Your task to perform on an android device: Show me productivity apps on the Play Store Image 0: 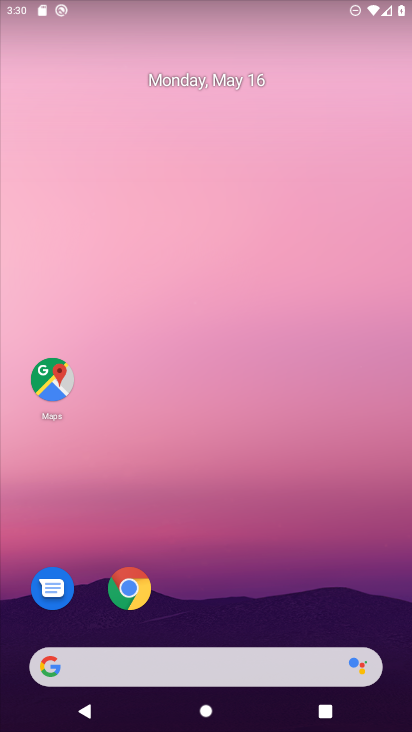
Step 0: drag from (356, 617) to (330, 1)
Your task to perform on an android device: Show me productivity apps on the Play Store Image 1: 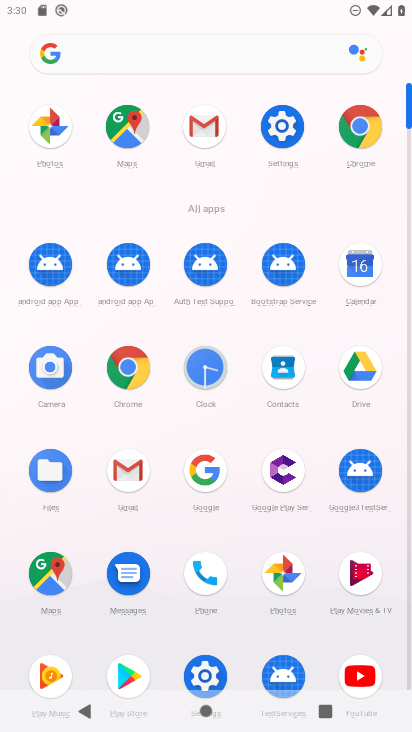
Step 1: click (126, 670)
Your task to perform on an android device: Show me productivity apps on the Play Store Image 2: 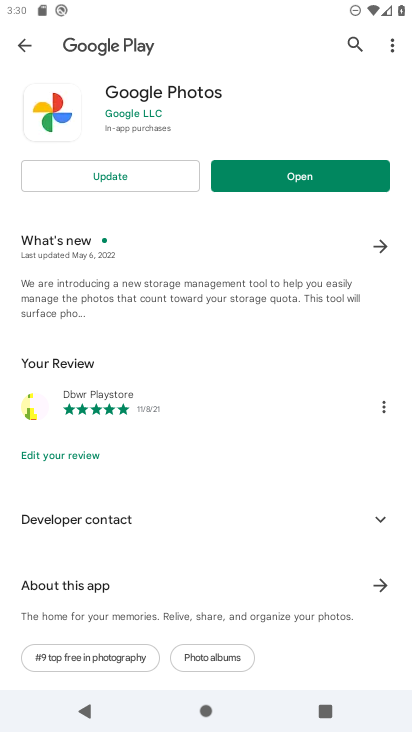
Step 2: click (15, 40)
Your task to perform on an android device: Show me productivity apps on the Play Store Image 3: 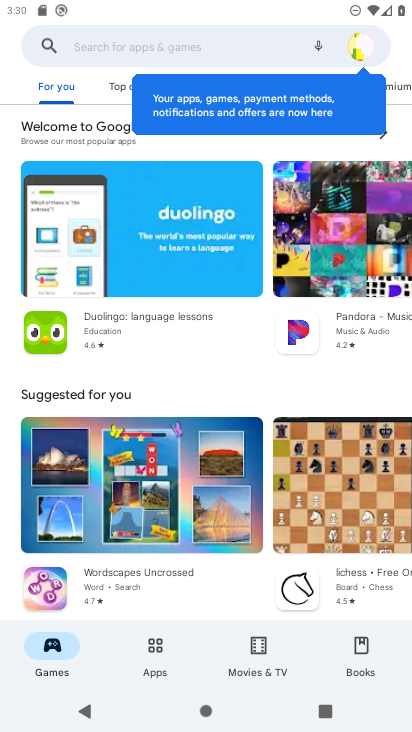
Step 3: click (146, 652)
Your task to perform on an android device: Show me productivity apps on the Play Store Image 4: 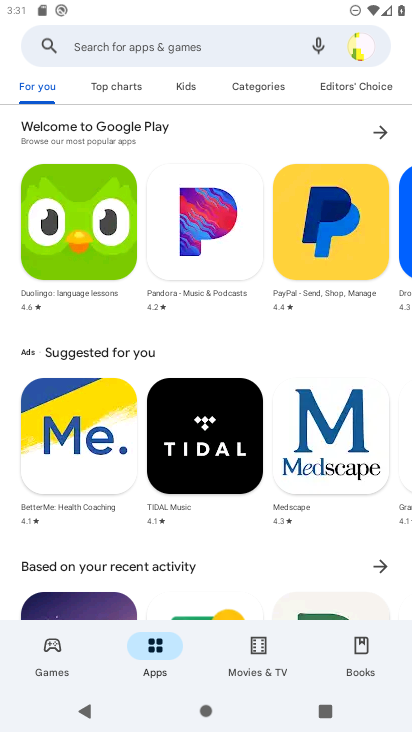
Step 4: click (263, 85)
Your task to perform on an android device: Show me productivity apps on the Play Store Image 5: 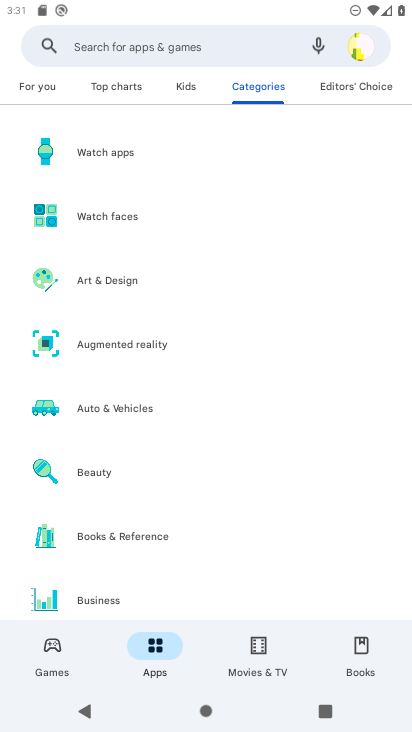
Step 5: drag from (207, 547) to (184, 156)
Your task to perform on an android device: Show me productivity apps on the Play Store Image 6: 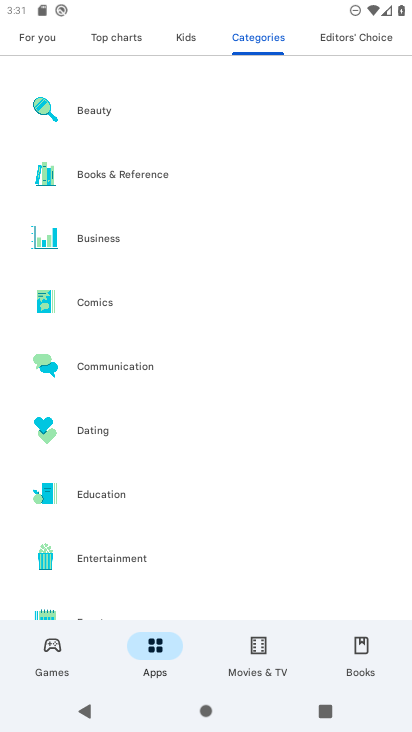
Step 6: drag from (174, 543) to (175, 152)
Your task to perform on an android device: Show me productivity apps on the Play Store Image 7: 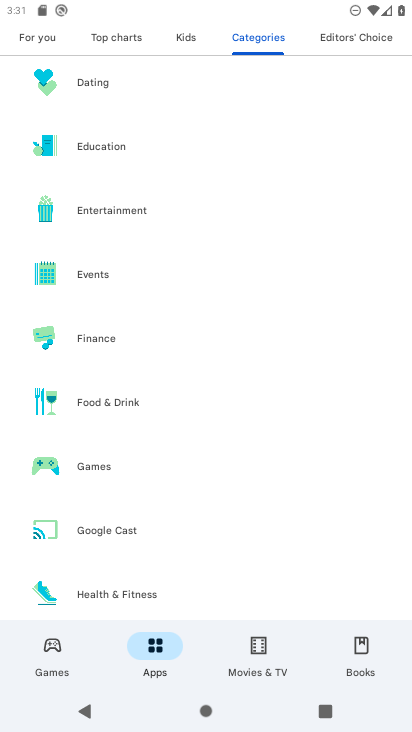
Step 7: drag from (182, 546) to (170, 150)
Your task to perform on an android device: Show me productivity apps on the Play Store Image 8: 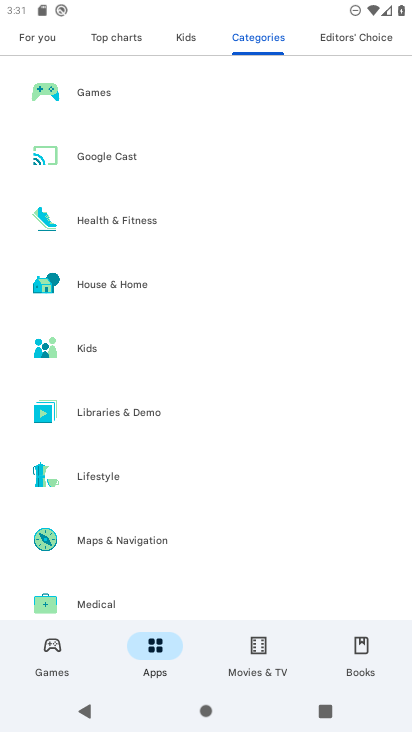
Step 8: drag from (215, 523) to (177, 103)
Your task to perform on an android device: Show me productivity apps on the Play Store Image 9: 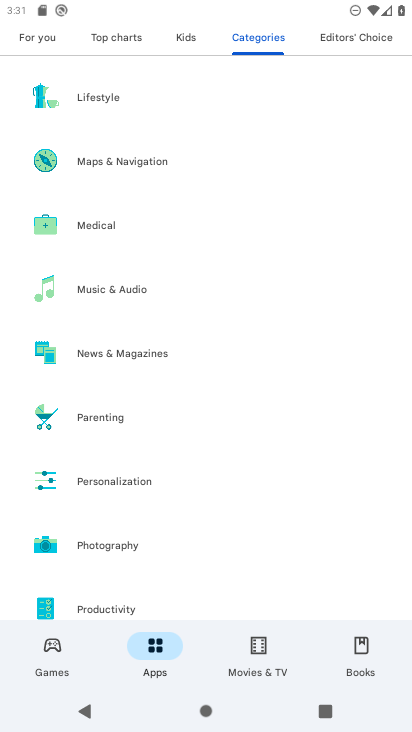
Step 9: drag from (216, 554) to (217, 238)
Your task to perform on an android device: Show me productivity apps on the Play Store Image 10: 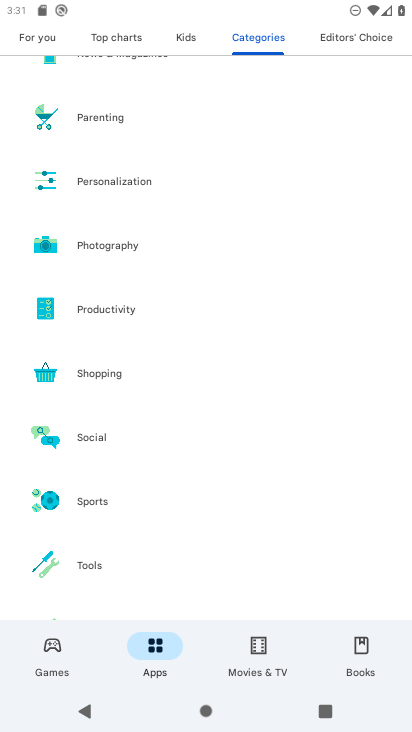
Step 10: click (94, 308)
Your task to perform on an android device: Show me productivity apps on the Play Store Image 11: 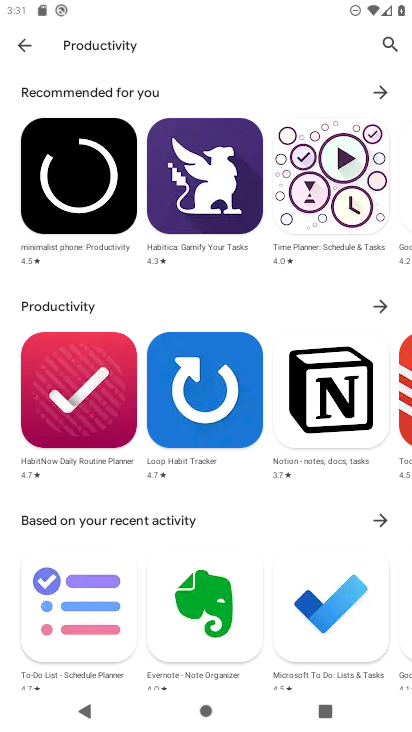
Step 11: task complete